Your task to perform on an android device: turn off location history Image 0: 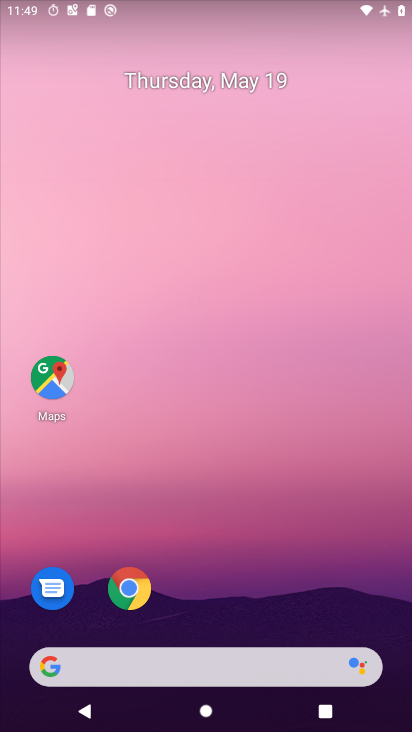
Step 0: press home button
Your task to perform on an android device: turn off location history Image 1: 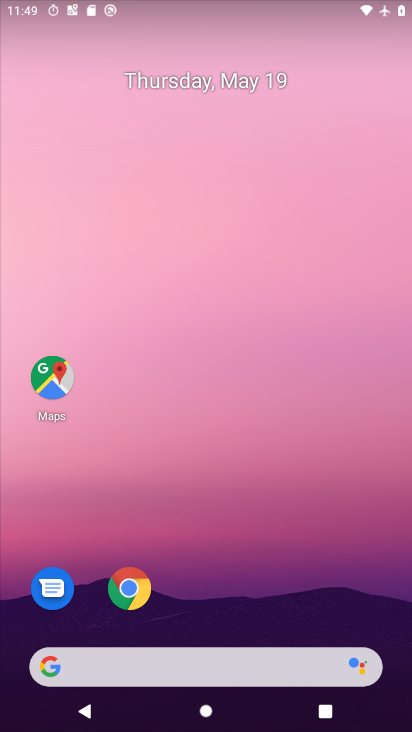
Step 1: click (56, 376)
Your task to perform on an android device: turn off location history Image 2: 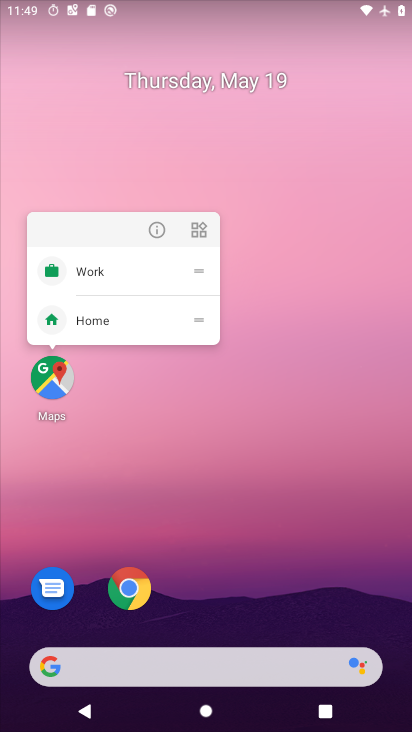
Step 2: click (54, 379)
Your task to perform on an android device: turn off location history Image 3: 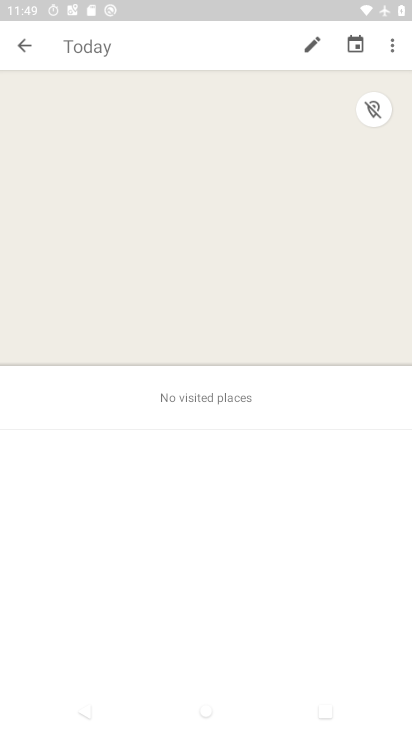
Step 3: click (21, 45)
Your task to perform on an android device: turn off location history Image 4: 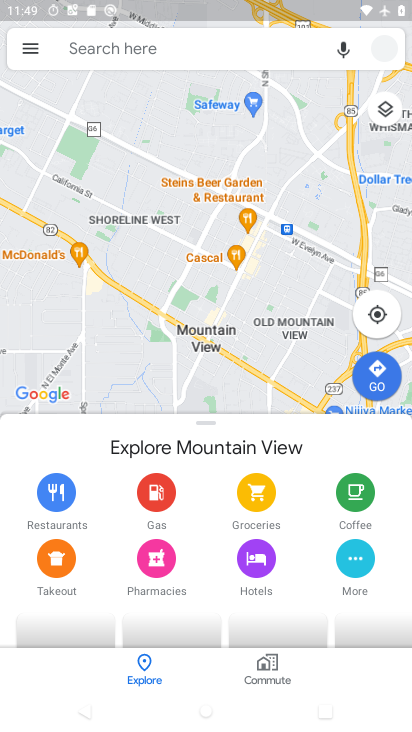
Step 4: click (25, 49)
Your task to perform on an android device: turn off location history Image 5: 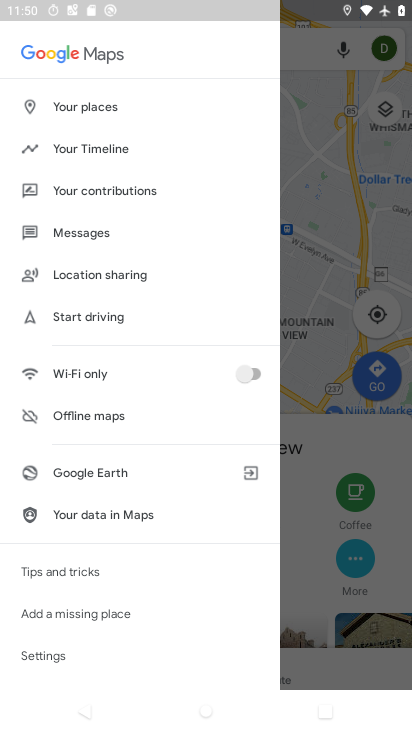
Step 5: click (114, 150)
Your task to perform on an android device: turn off location history Image 6: 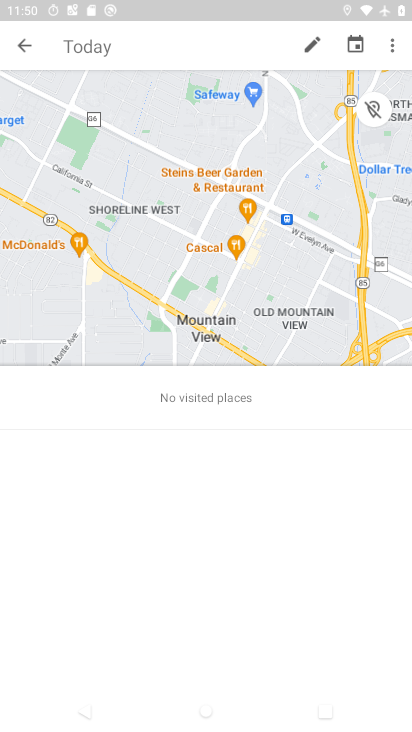
Step 6: click (394, 50)
Your task to perform on an android device: turn off location history Image 7: 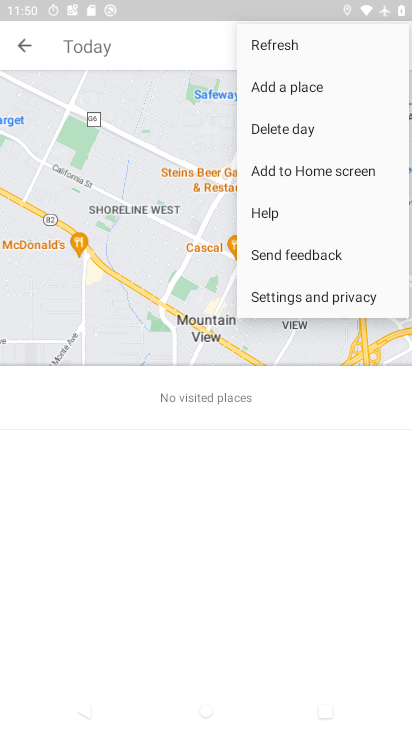
Step 7: click (276, 297)
Your task to perform on an android device: turn off location history Image 8: 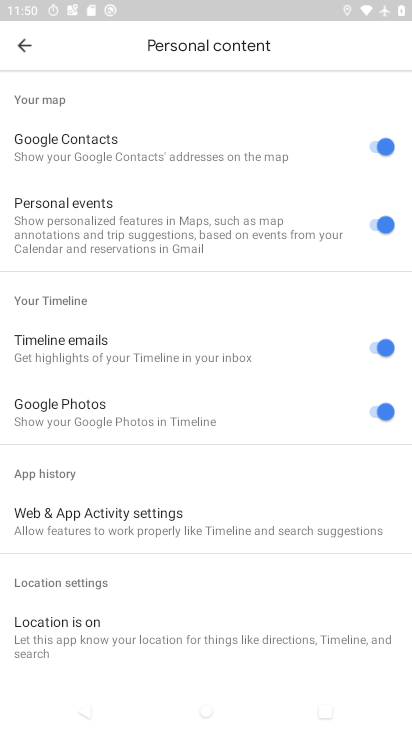
Step 8: drag from (188, 615) to (334, 78)
Your task to perform on an android device: turn off location history Image 9: 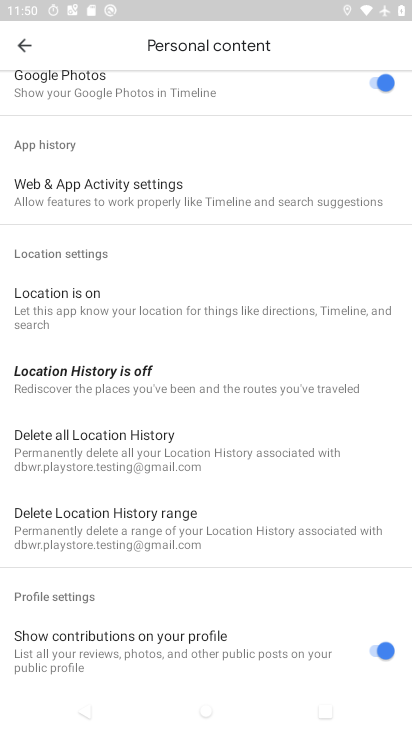
Step 9: click (143, 380)
Your task to perform on an android device: turn off location history Image 10: 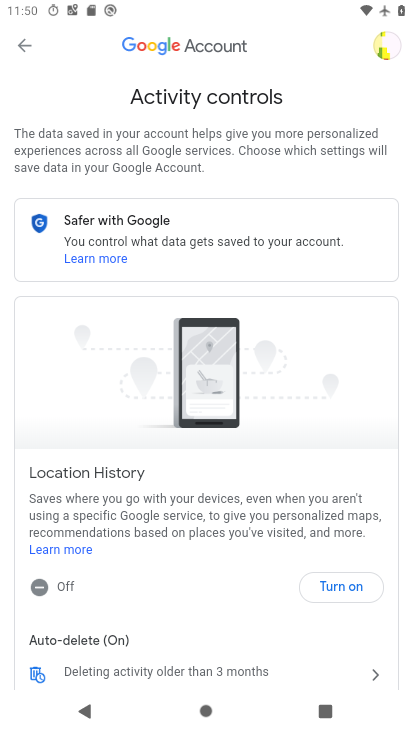
Step 10: task complete